Your task to perform on an android device: Show me productivity apps on the Play Store Image 0: 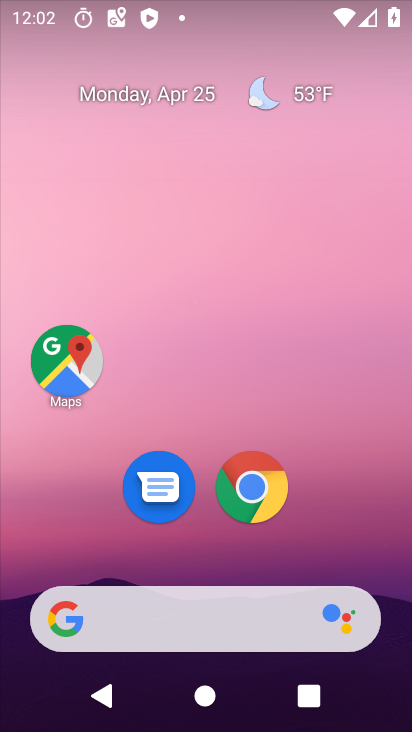
Step 0: drag from (196, 536) to (255, 8)
Your task to perform on an android device: Show me productivity apps on the Play Store Image 1: 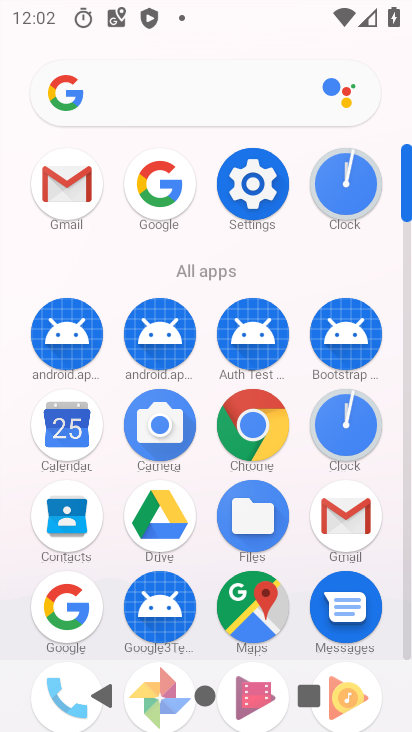
Step 1: drag from (201, 574) to (215, 202)
Your task to perform on an android device: Show me productivity apps on the Play Store Image 2: 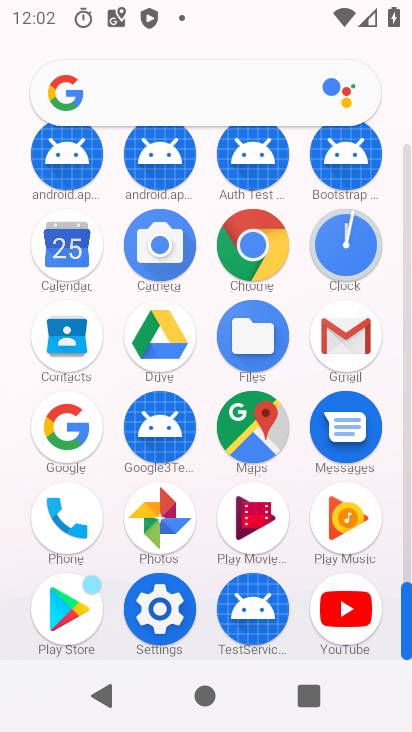
Step 2: click (61, 606)
Your task to perform on an android device: Show me productivity apps on the Play Store Image 3: 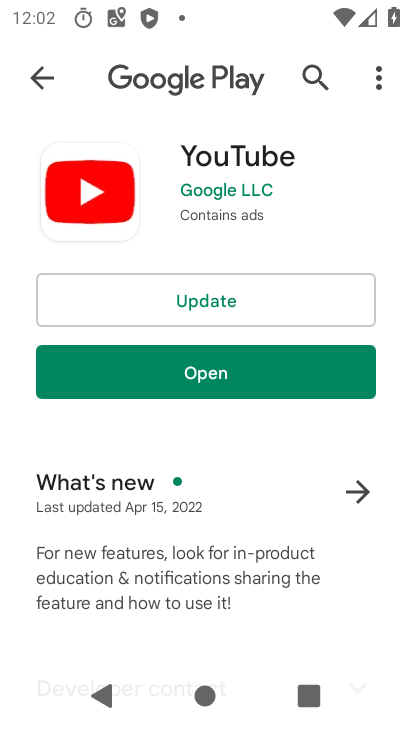
Step 3: click (51, 78)
Your task to perform on an android device: Show me productivity apps on the Play Store Image 4: 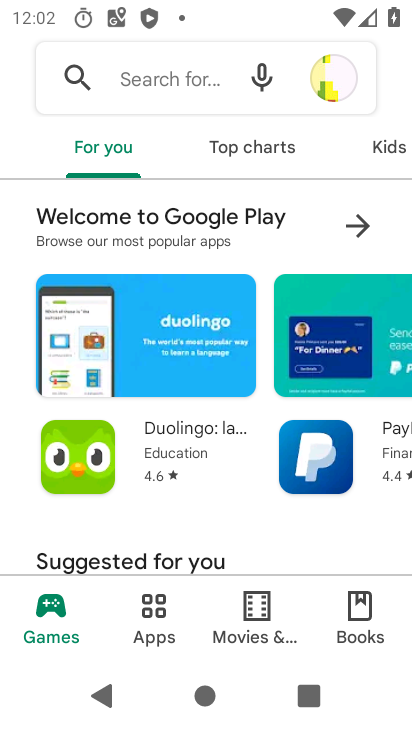
Step 4: click (153, 619)
Your task to perform on an android device: Show me productivity apps on the Play Store Image 5: 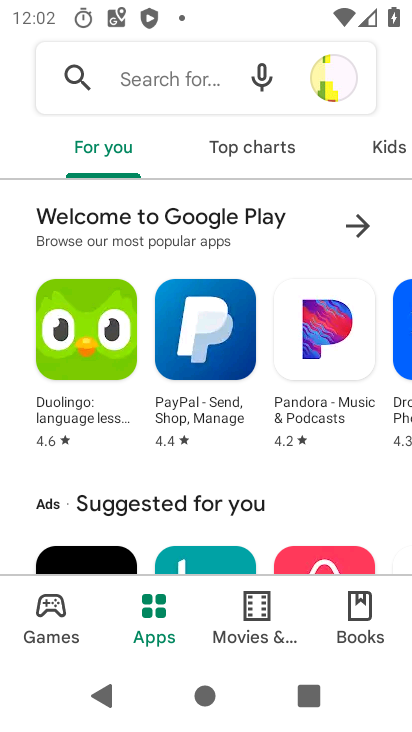
Step 5: drag from (341, 142) to (65, 165)
Your task to perform on an android device: Show me productivity apps on the Play Store Image 6: 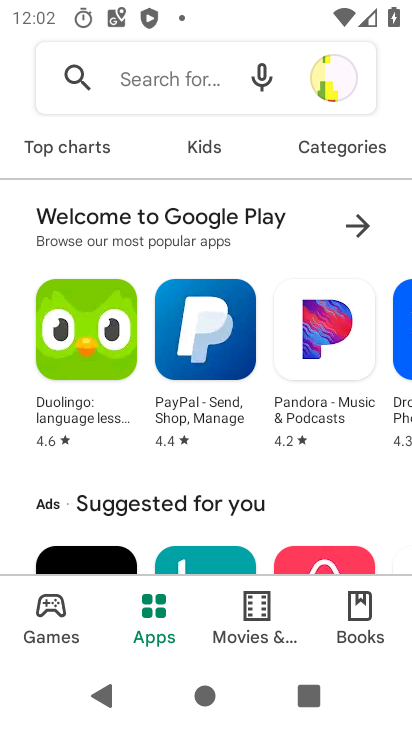
Step 6: click (346, 145)
Your task to perform on an android device: Show me productivity apps on the Play Store Image 7: 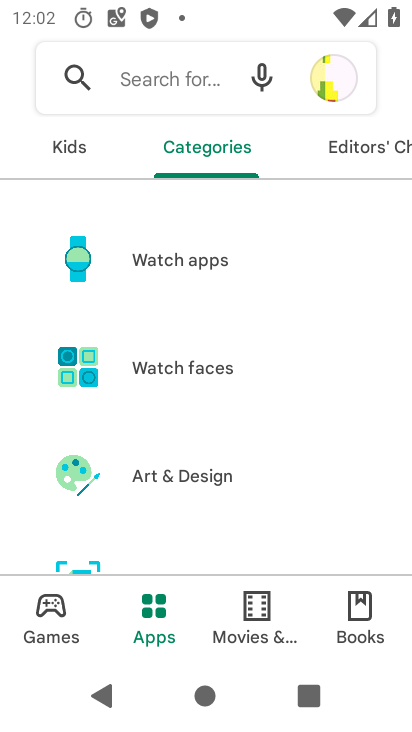
Step 7: drag from (192, 534) to (217, 191)
Your task to perform on an android device: Show me productivity apps on the Play Store Image 8: 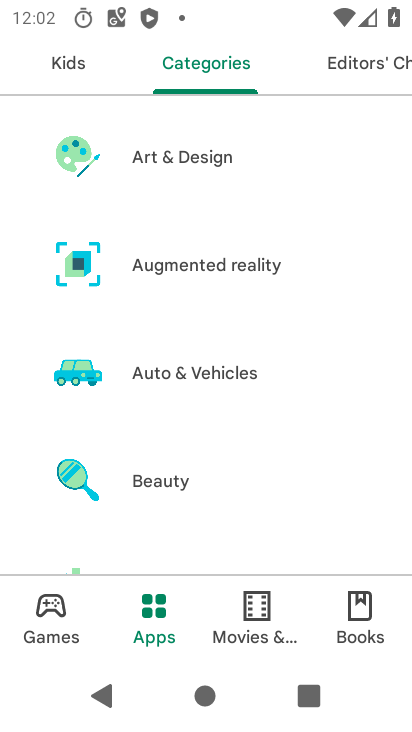
Step 8: drag from (193, 512) to (260, 38)
Your task to perform on an android device: Show me productivity apps on the Play Store Image 9: 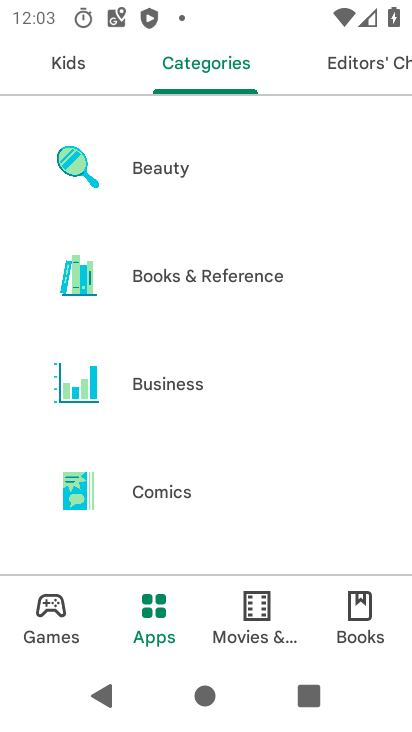
Step 9: drag from (205, 500) to (274, 44)
Your task to perform on an android device: Show me productivity apps on the Play Store Image 10: 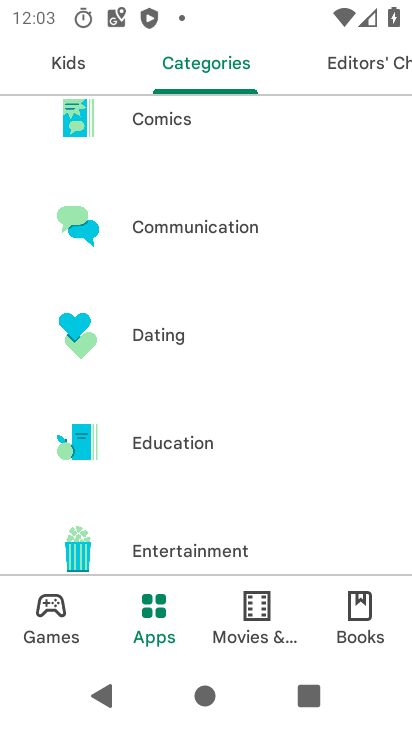
Step 10: drag from (195, 542) to (219, 20)
Your task to perform on an android device: Show me productivity apps on the Play Store Image 11: 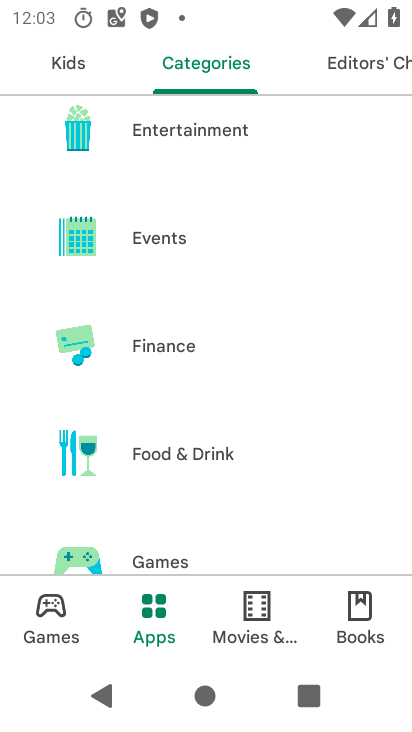
Step 11: drag from (207, 567) to (260, 155)
Your task to perform on an android device: Show me productivity apps on the Play Store Image 12: 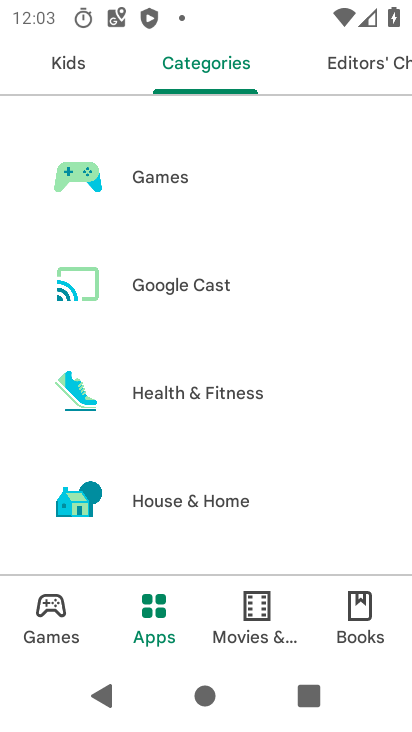
Step 12: drag from (179, 538) to (247, 79)
Your task to perform on an android device: Show me productivity apps on the Play Store Image 13: 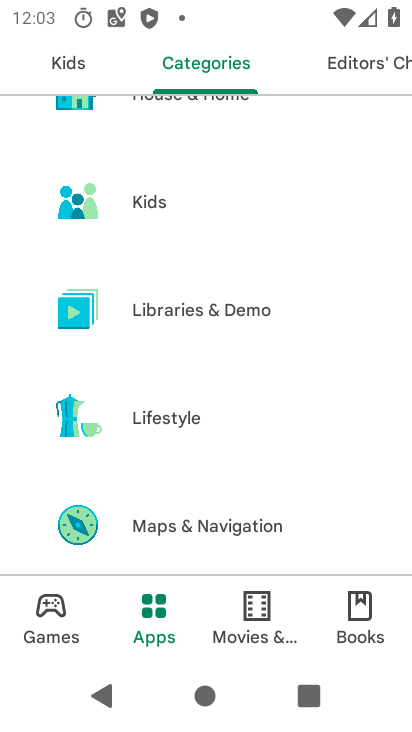
Step 13: drag from (205, 486) to (272, 39)
Your task to perform on an android device: Show me productivity apps on the Play Store Image 14: 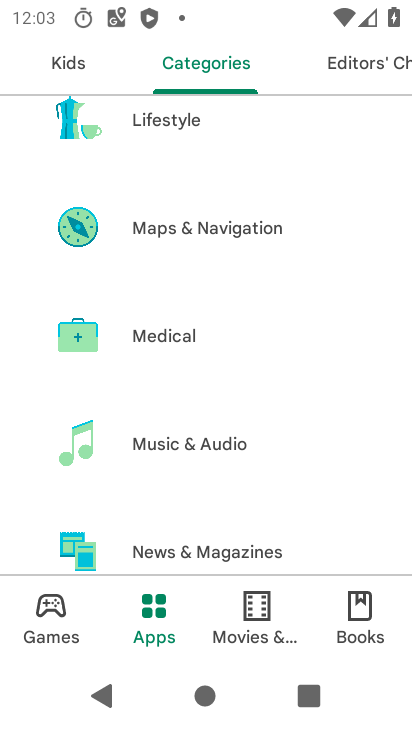
Step 14: drag from (216, 559) to (269, 61)
Your task to perform on an android device: Show me productivity apps on the Play Store Image 15: 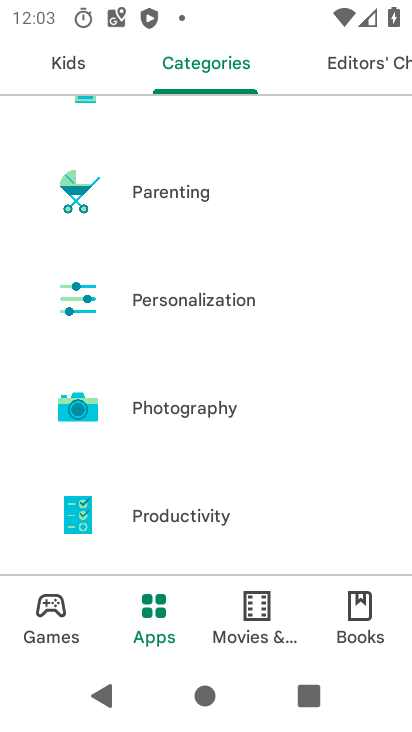
Step 15: click (190, 515)
Your task to perform on an android device: Show me productivity apps on the Play Store Image 16: 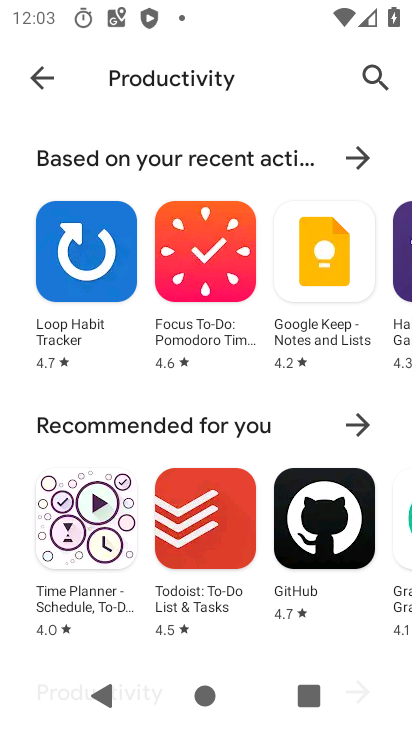
Step 16: task complete